Your task to perform on an android device: Open internet settings Image 0: 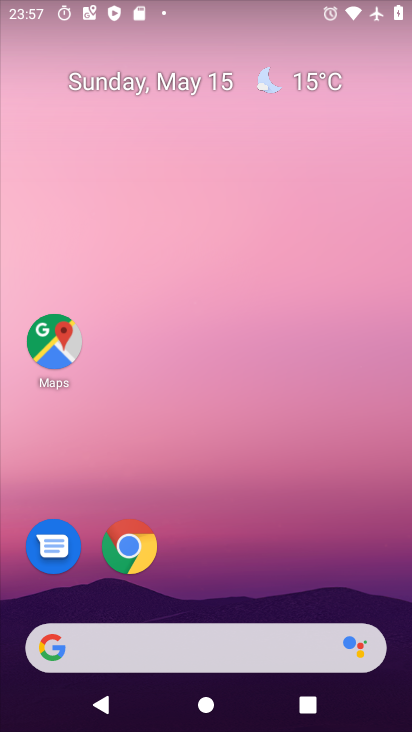
Step 0: drag from (264, 688) to (184, 125)
Your task to perform on an android device: Open internet settings Image 1: 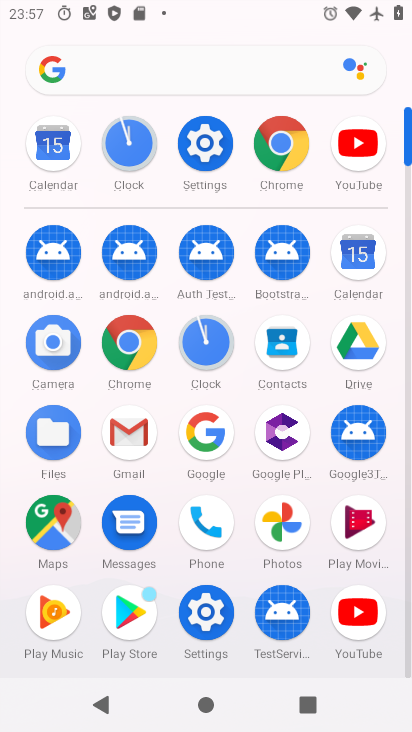
Step 1: drag from (275, 556) to (264, 142)
Your task to perform on an android device: Open internet settings Image 2: 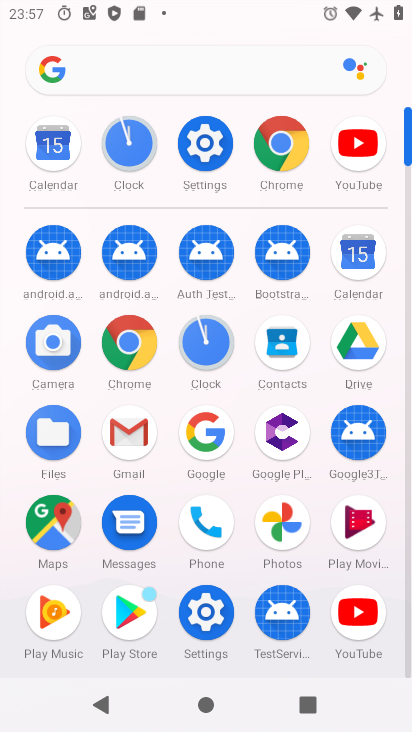
Step 2: click (193, 137)
Your task to perform on an android device: Open internet settings Image 3: 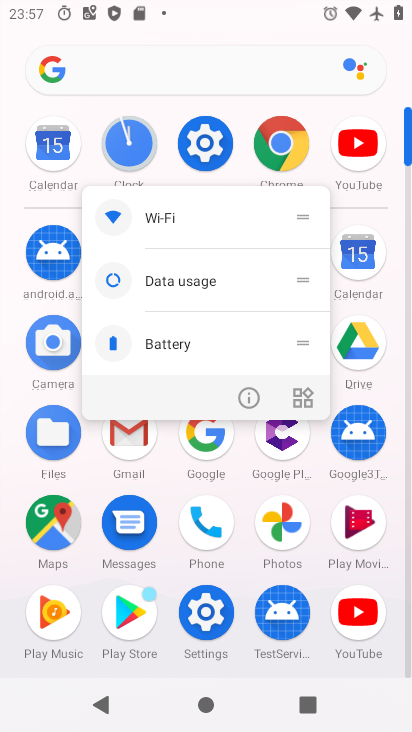
Step 3: click (200, 146)
Your task to perform on an android device: Open internet settings Image 4: 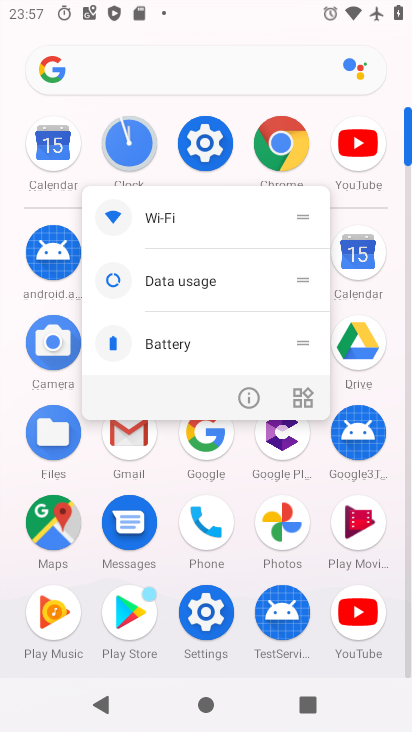
Step 4: click (200, 146)
Your task to perform on an android device: Open internet settings Image 5: 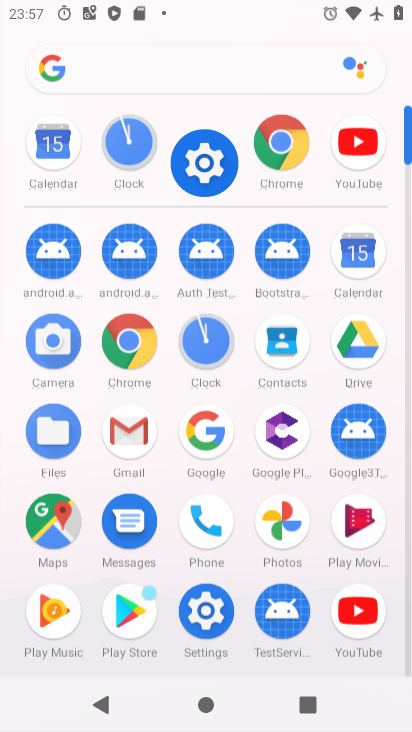
Step 5: click (200, 146)
Your task to perform on an android device: Open internet settings Image 6: 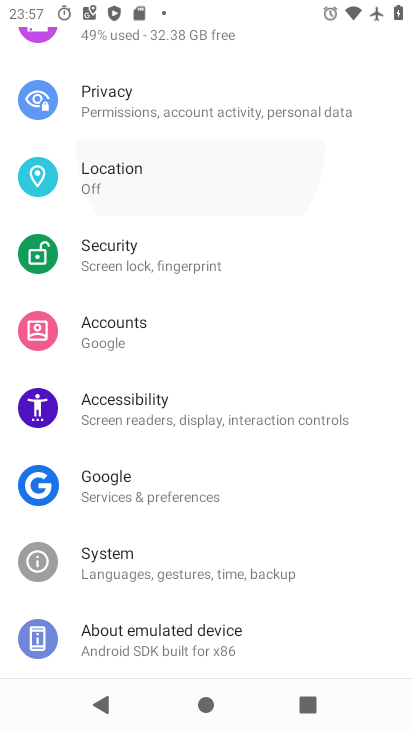
Step 6: click (200, 146)
Your task to perform on an android device: Open internet settings Image 7: 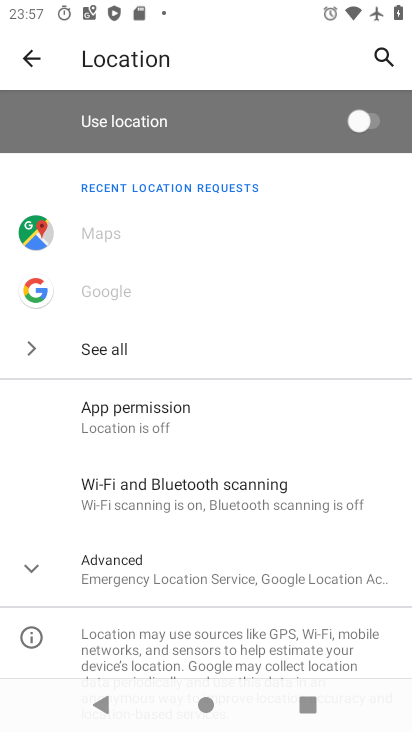
Step 7: click (22, 58)
Your task to perform on an android device: Open internet settings Image 8: 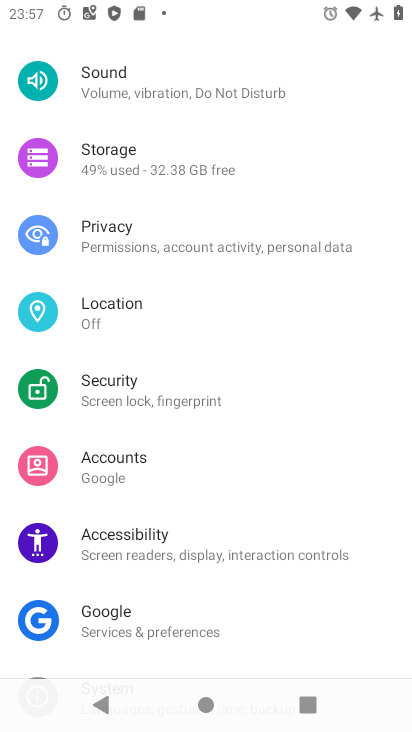
Step 8: drag from (160, 248) to (152, 594)
Your task to perform on an android device: Open internet settings Image 9: 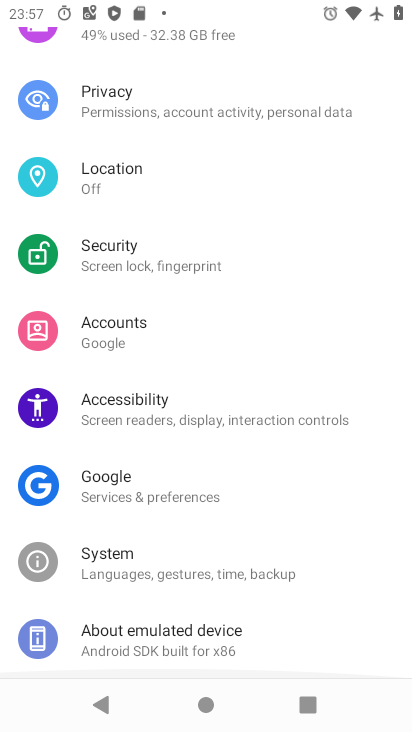
Step 9: drag from (107, 188) to (212, 601)
Your task to perform on an android device: Open internet settings Image 10: 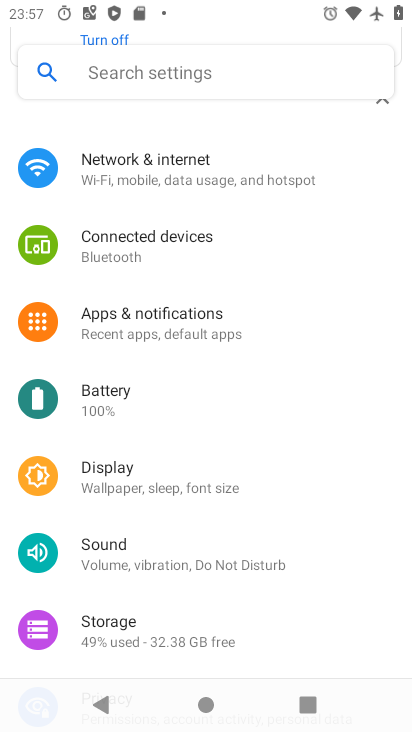
Step 10: drag from (110, 137) to (178, 559)
Your task to perform on an android device: Open internet settings Image 11: 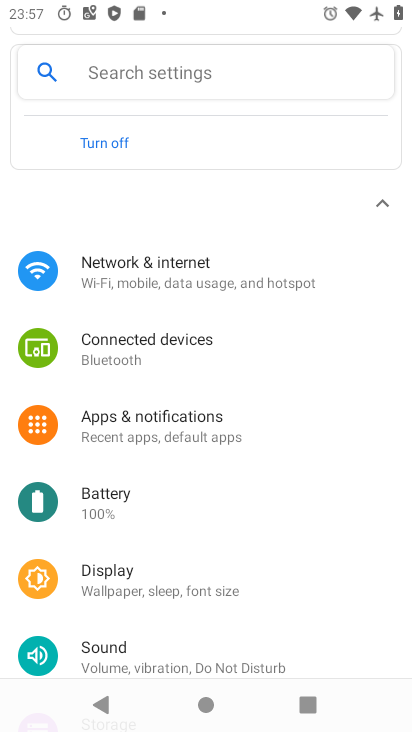
Step 11: click (212, 399)
Your task to perform on an android device: Open internet settings Image 12: 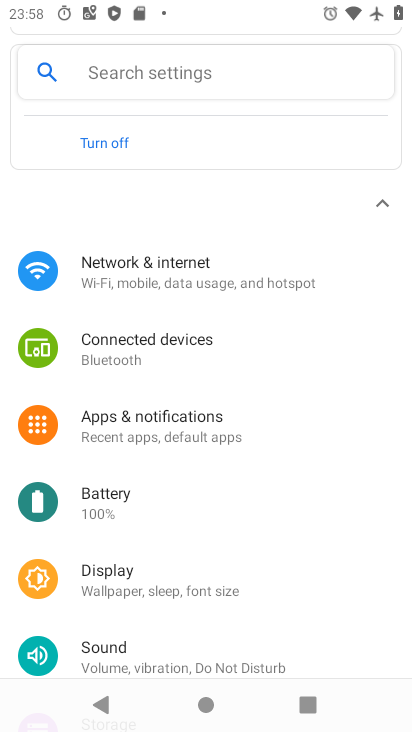
Step 12: click (179, 263)
Your task to perform on an android device: Open internet settings Image 13: 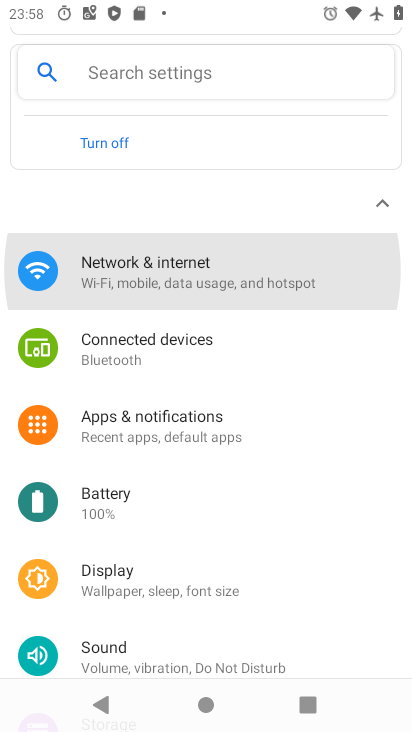
Step 13: click (186, 256)
Your task to perform on an android device: Open internet settings Image 14: 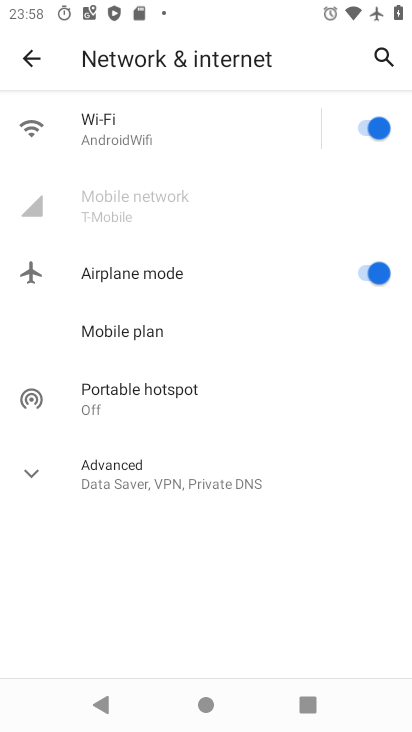
Step 14: task complete